Your task to perform on an android device: Is it going to rain this weekend? Image 0: 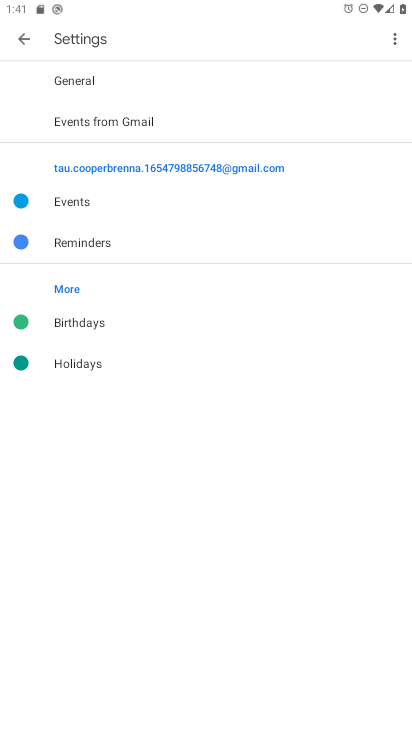
Step 0: press home button
Your task to perform on an android device: Is it going to rain this weekend? Image 1: 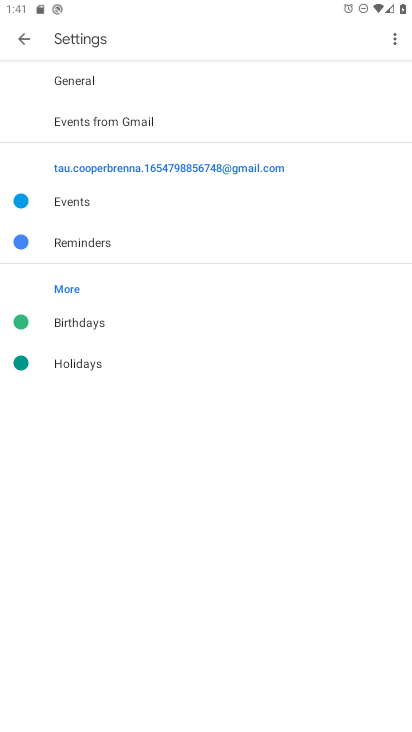
Step 1: press home button
Your task to perform on an android device: Is it going to rain this weekend? Image 2: 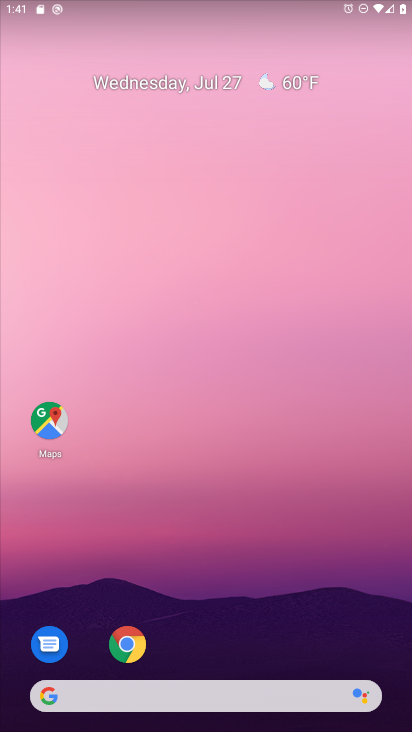
Step 2: drag from (191, 628) to (277, 194)
Your task to perform on an android device: Is it going to rain this weekend? Image 3: 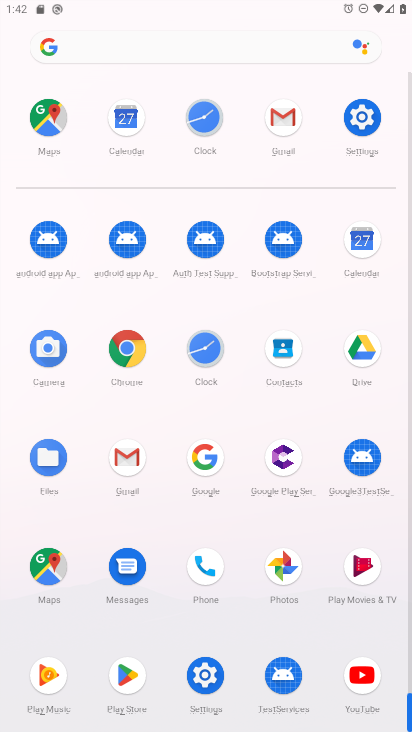
Step 3: click (109, 41)
Your task to perform on an android device: Is it going to rain this weekend? Image 4: 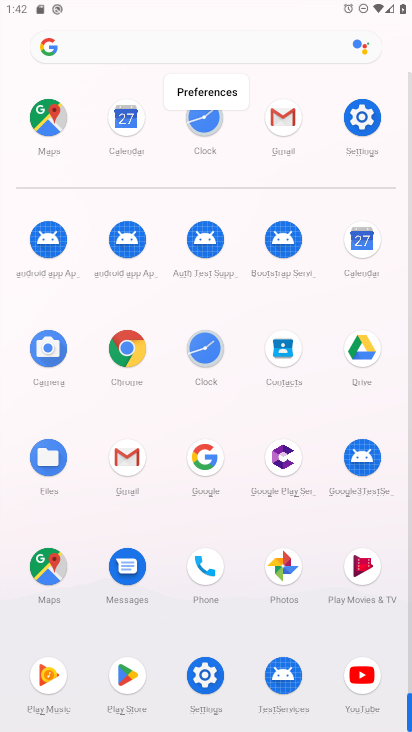
Step 4: click (113, 42)
Your task to perform on an android device: Is it going to rain this weekend? Image 5: 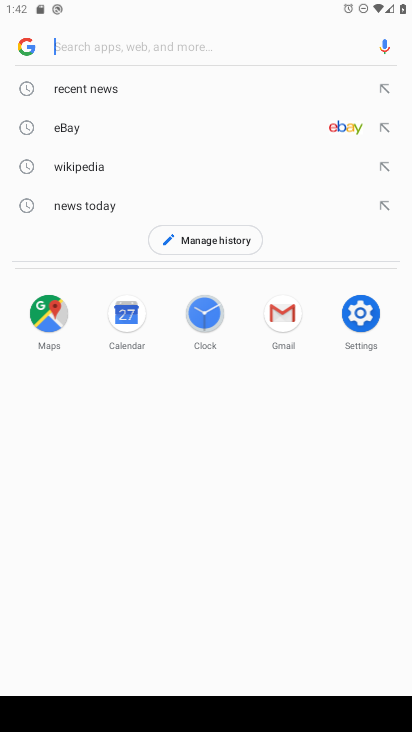
Step 5: type "Is it going to rain this weekend?"
Your task to perform on an android device: Is it going to rain this weekend? Image 6: 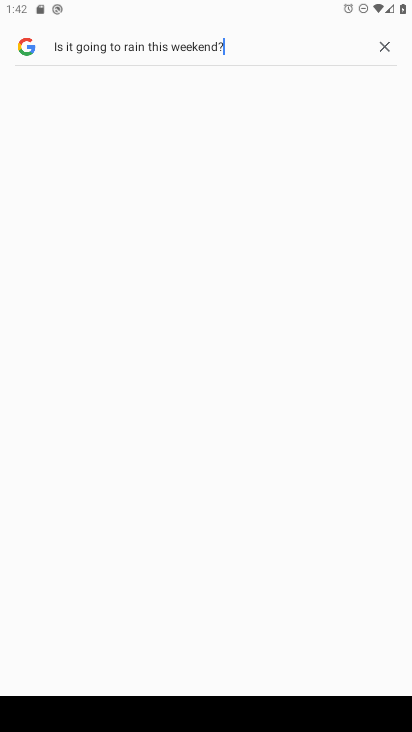
Step 6: drag from (142, 463) to (172, 157)
Your task to perform on an android device: Is it going to rain this weekend? Image 7: 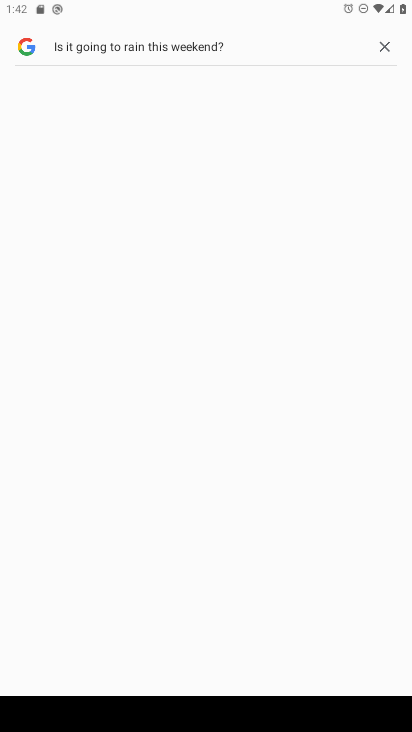
Step 7: drag from (222, 386) to (249, 222)
Your task to perform on an android device: Is it going to rain this weekend? Image 8: 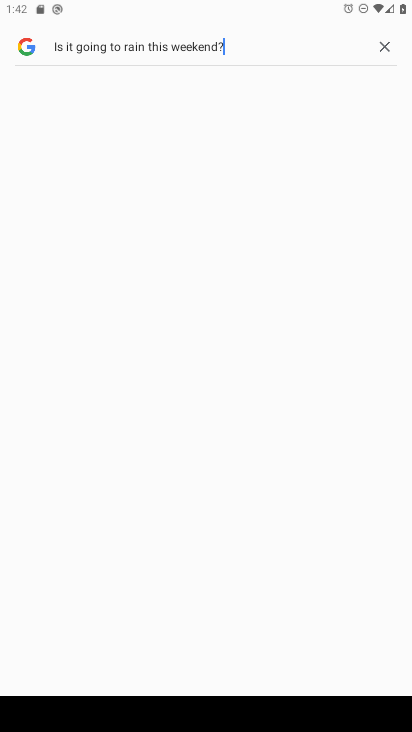
Step 8: click (249, 50)
Your task to perform on an android device: Is it going to rain this weekend? Image 9: 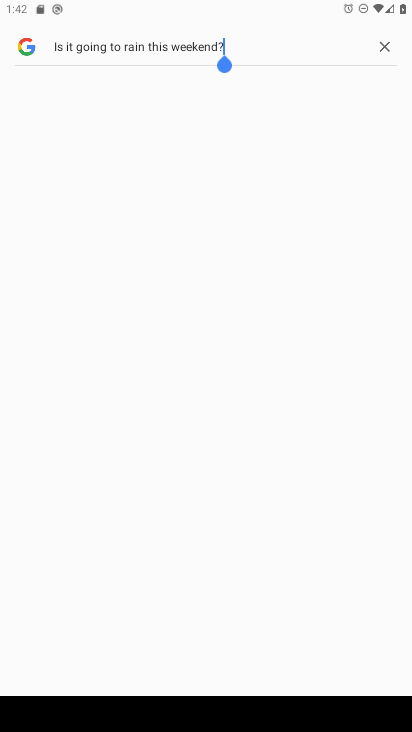
Step 9: task complete